Your task to perform on an android device: turn off smart reply in the gmail app Image 0: 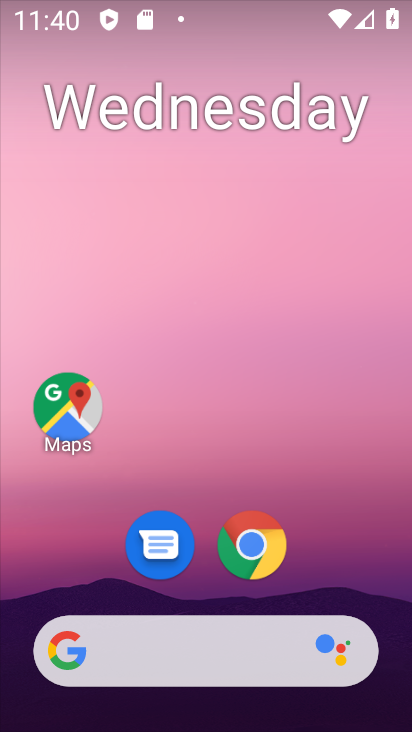
Step 0: drag from (283, 437) to (272, 116)
Your task to perform on an android device: turn off smart reply in the gmail app Image 1: 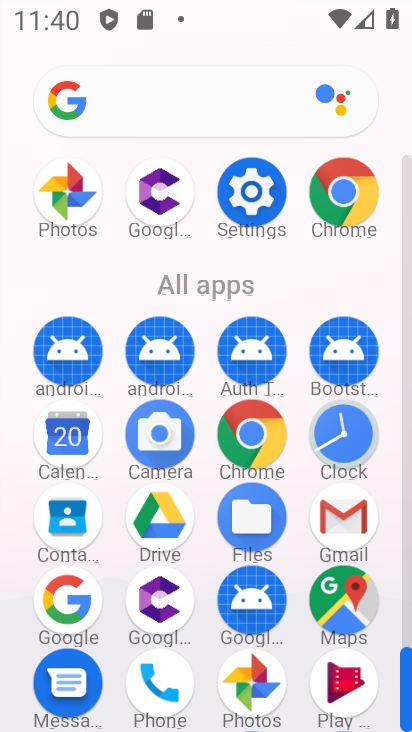
Step 1: click (338, 524)
Your task to perform on an android device: turn off smart reply in the gmail app Image 2: 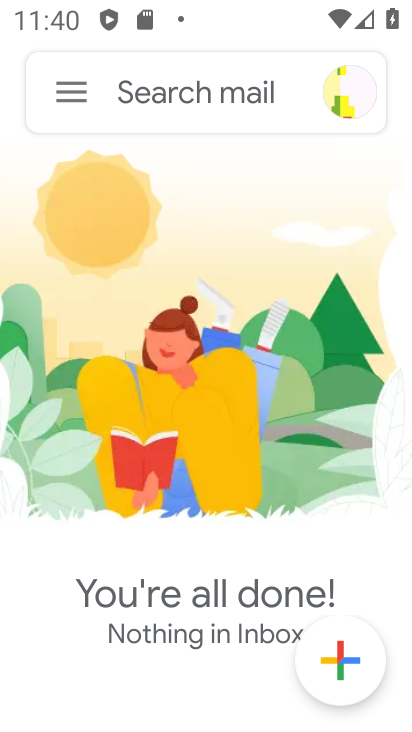
Step 2: click (66, 95)
Your task to perform on an android device: turn off smart reply in the gmail app Image 3: 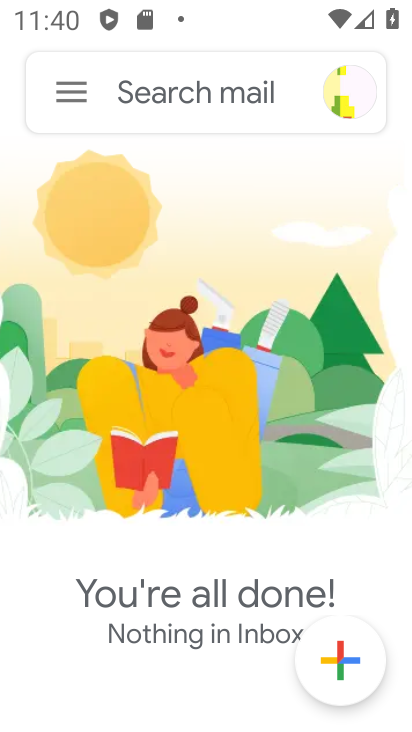
Step 3: click (76, 93)
Your task to perform on an android device: turn off smart reply in the gmail app Image 4: 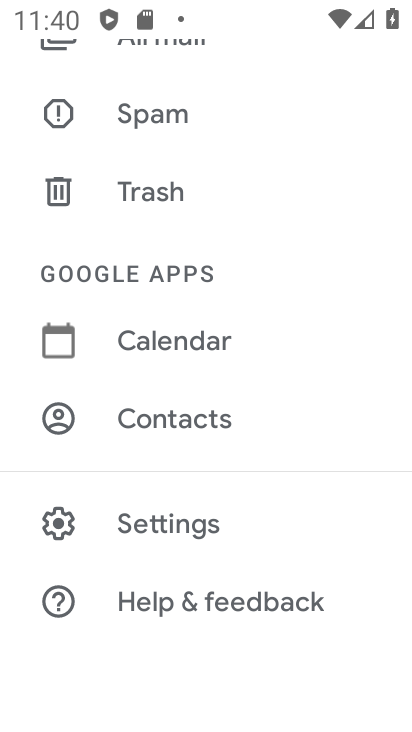
Step 4: click (198, 525)
Your task to perform on an android device: turn off smart reply in the gmail app Image 5: 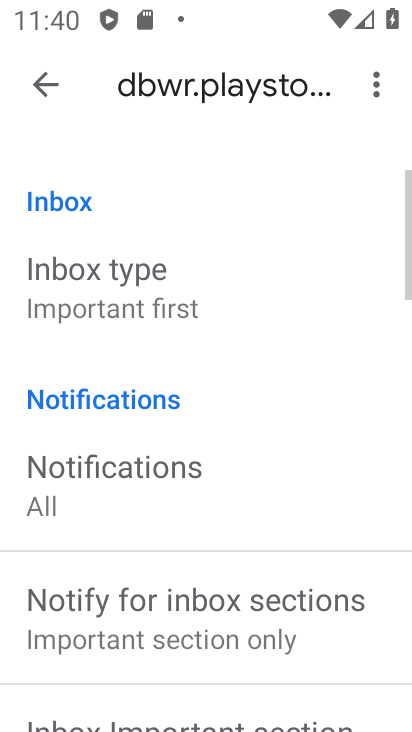
Step 5: drag from (213, 641) to (206, 251)
Your task to perform on an android device: turn off smart reply in the gmail app Image 6: 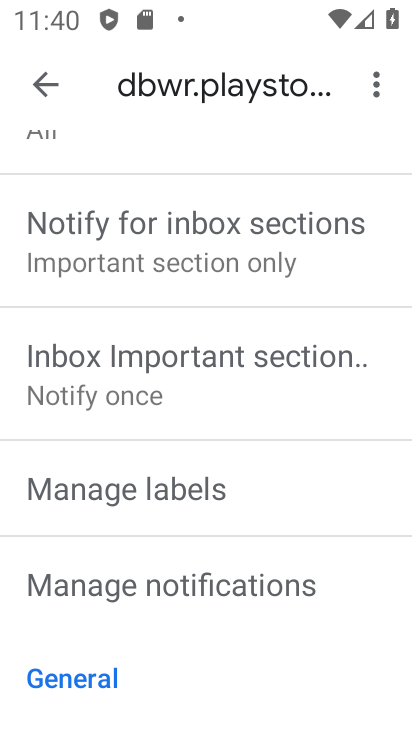
Step 6: drag from (181, 589) to (213, 149)
Your task to perform on an android device: turn off smart reply in the gmail app Image 7: 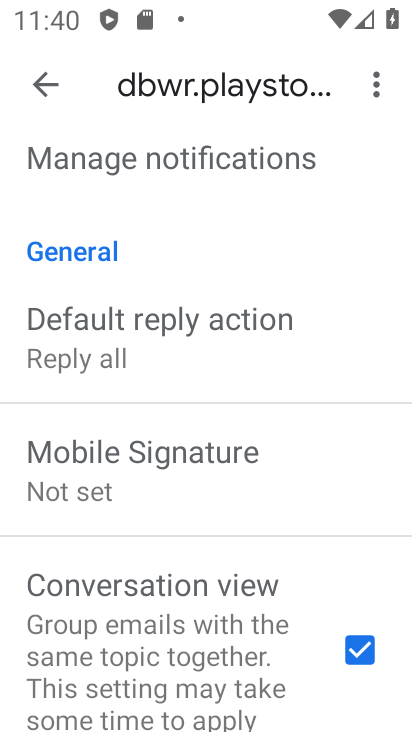
Step 7: drag from (200, 651) to (192, 237)
Your task to perform on an android device: turn off smart reply in the gmail app Image 8: 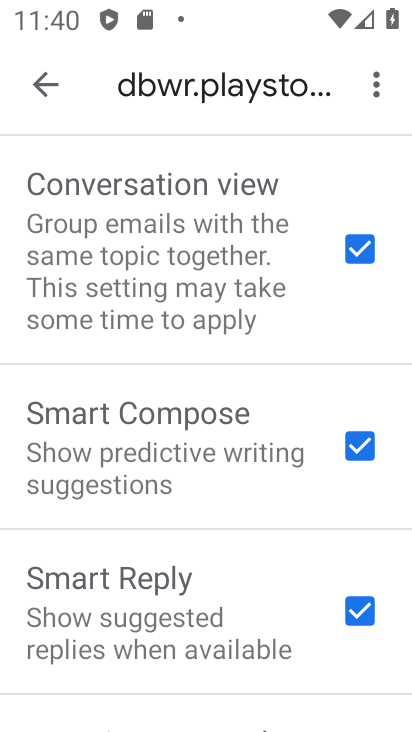
Step 8: click (367, 609)
Your task to perform on an android device: turn off smart reply in the gmail app Image 9: 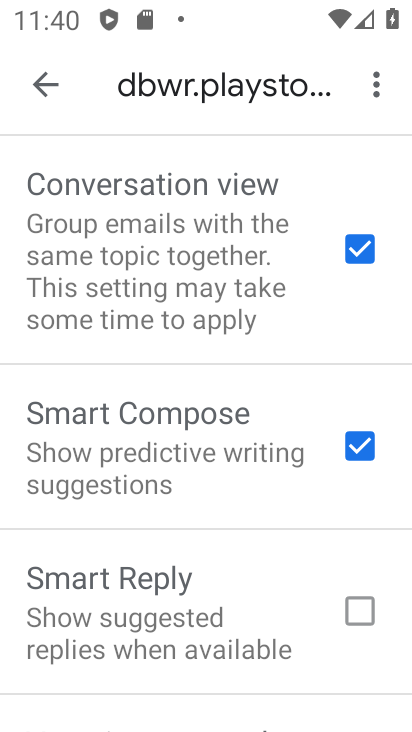
Step 9: task complete